Your task to perform on an android device: Do I have any events tomorrow? Image 0: 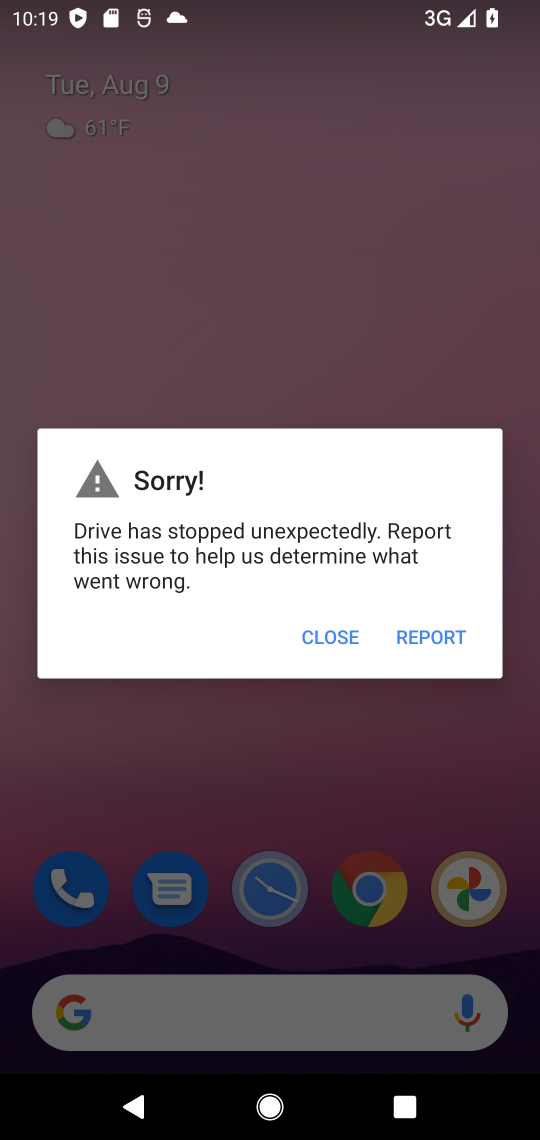
Step 0: click (333, 640)
Your task to perform on an android device: Do I have any events tomorrow? Image 1: 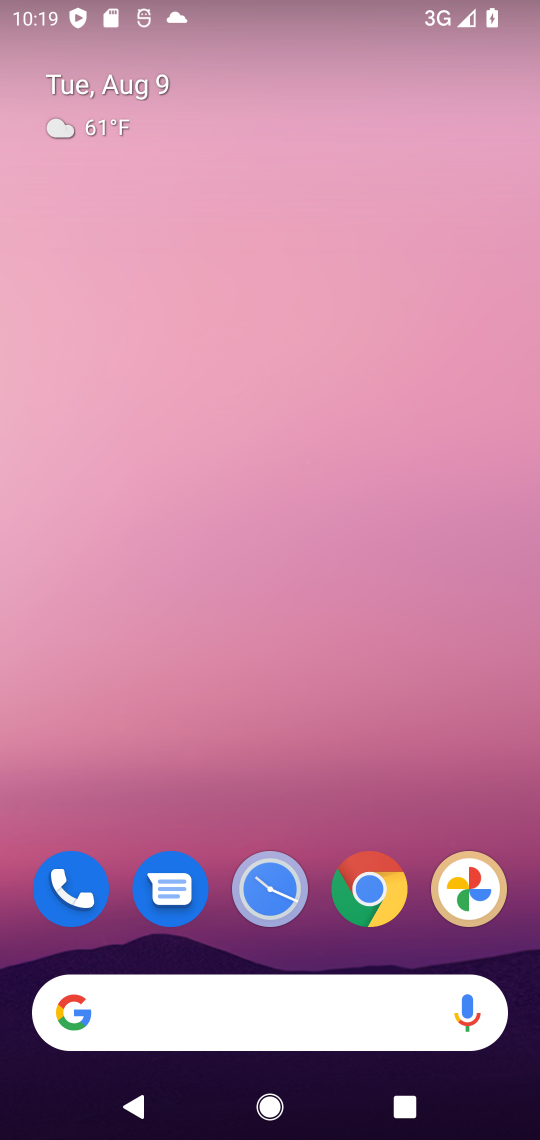
Step 1: drag from (280, 824) to (308, 26)
Your task to perform on an android device: Do I have any events tomorrow? Image 2: 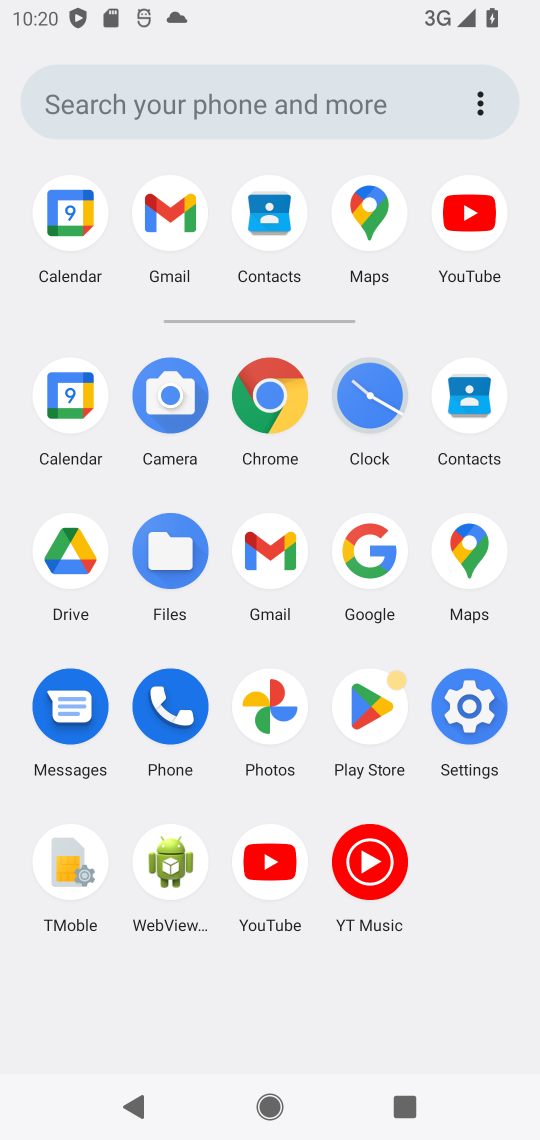
Step 2: click (79, 418)
Your task to perform on an android device: Do I have any events tomorrow? Image 3: 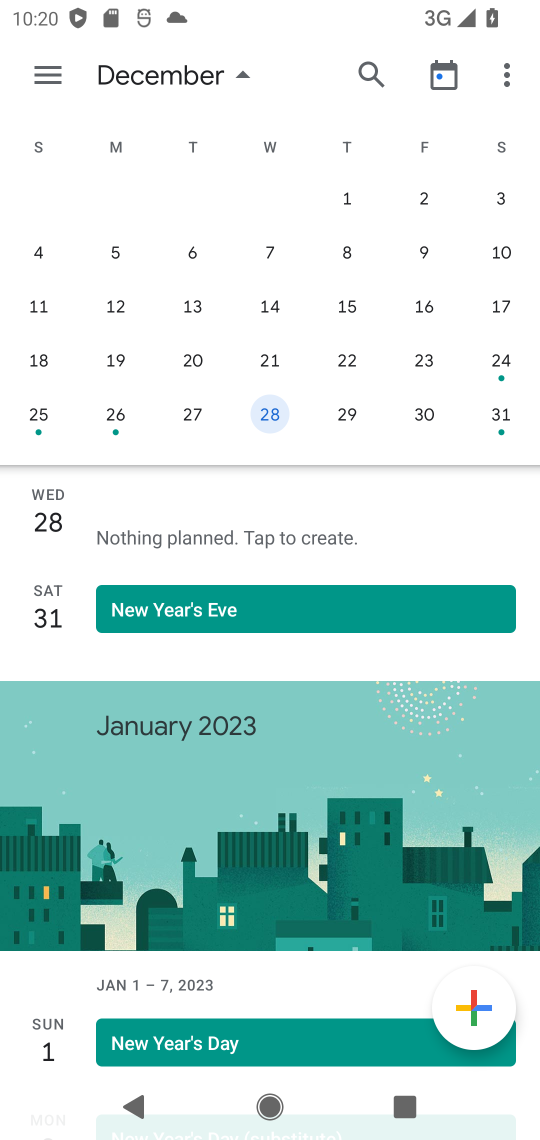
Step 3: click (350, 413)
Your task to perform on an android device: Do I have any events tomorrow? Image 4: 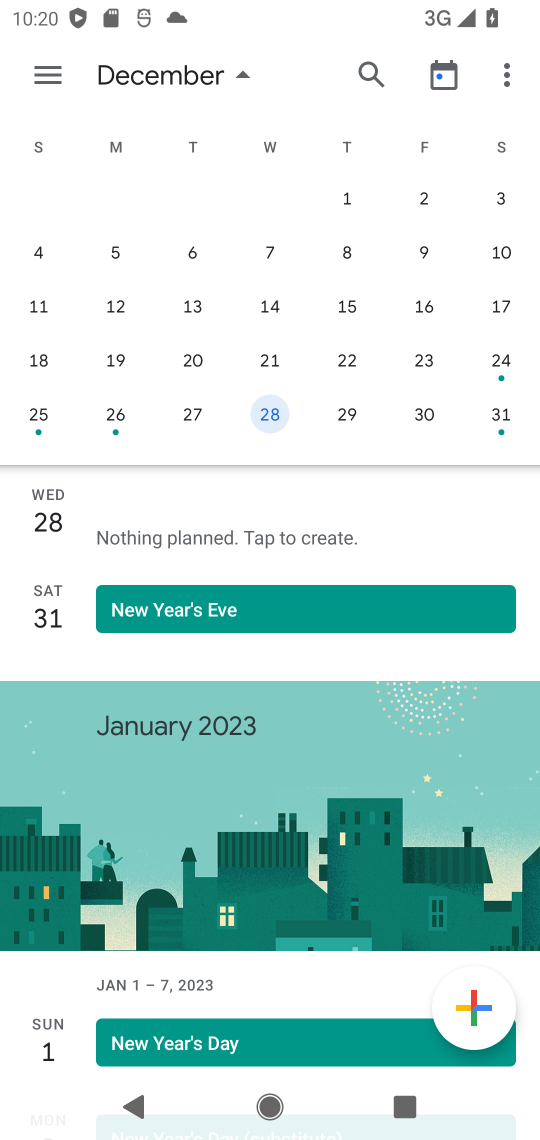
Step 4: task complete